Your task to perform on an android device: turn notification dots on Image 0: 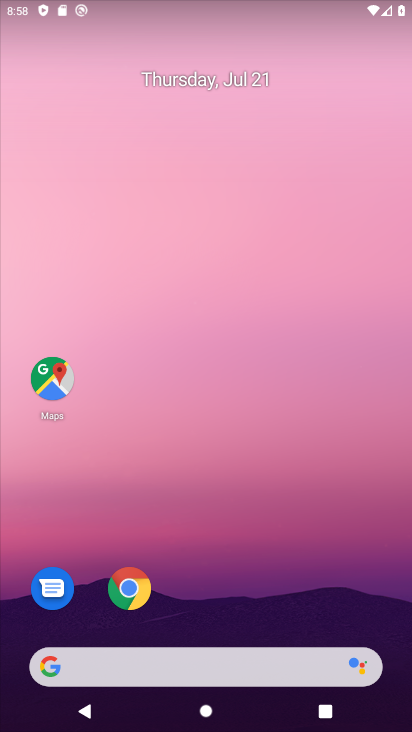
Step 0: drag from (395, 689) to (151, 130)
Your task to perform on an android device: turn notification dots on Image 1: 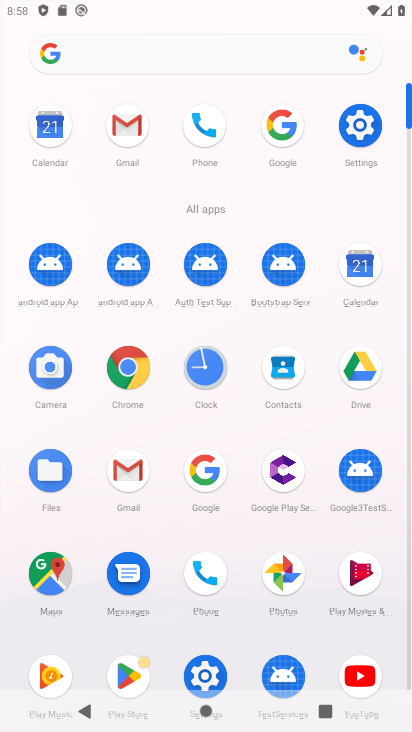
Step 1: click (362, 119)
Your task to perform on an android device: turn notification dots on Image 2: 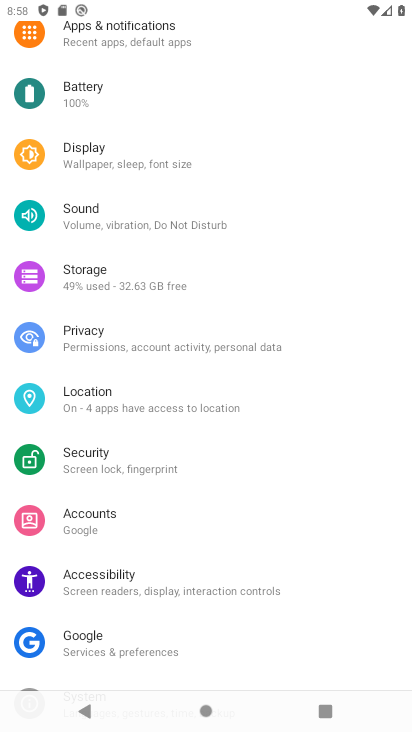
Step 2: click (131, 21)
Your task to perform on an android device: turn notification dots on Image 3: 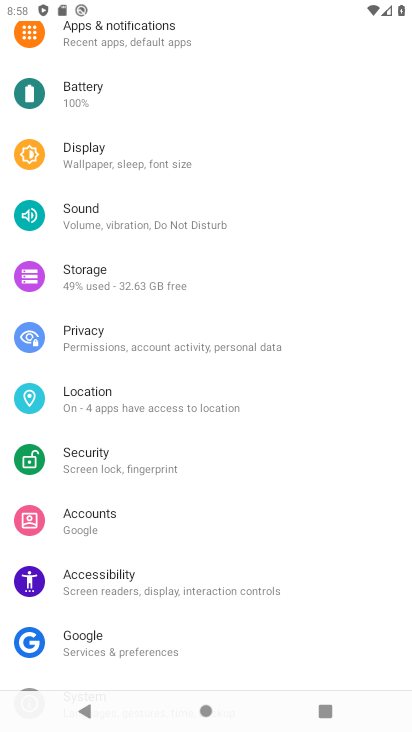
Step 3: click (118, 32)
Your task to perform on an android device: turn notification dots on Image 4: 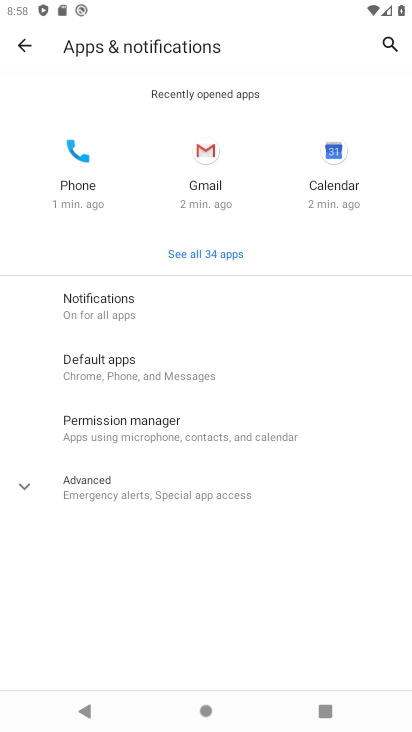
Step 4: click (114, 313)
Your task to perform on an android device: turn notification dots on Image 5: 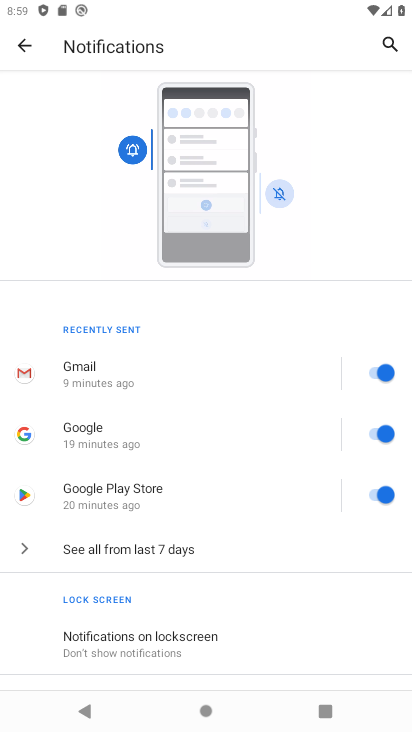
Step 5: drag from (282, 610) to (197, 289)
Your task to perform on an android device: turn notification dots on Image 6: 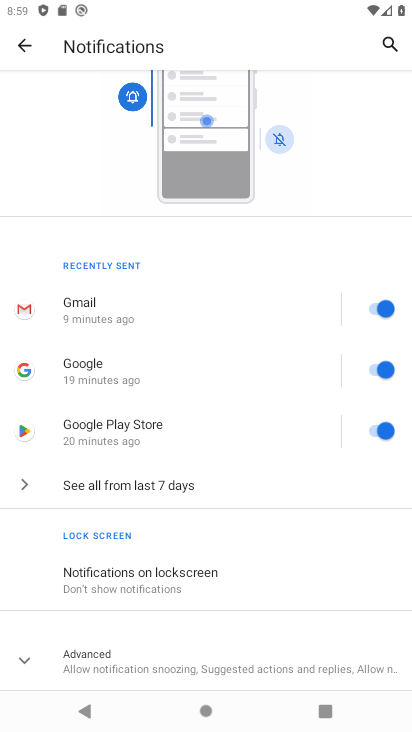
Step 6: click (22, 657)
Your task to perform on an android device: turn notification dots on Image 7: 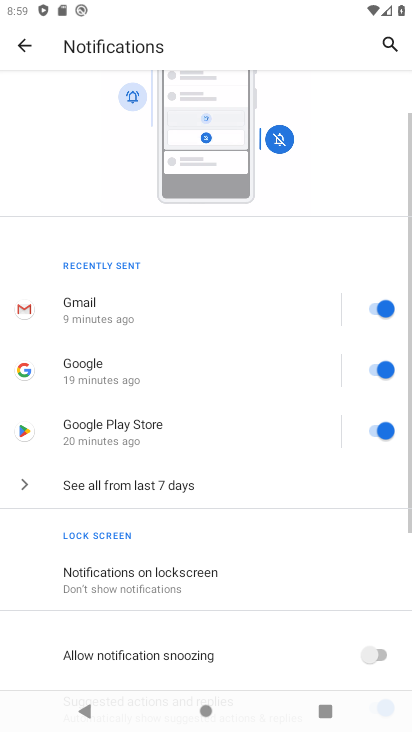
Step 7: task complete